Your task to perform on an android device: Open internet settings Image 0: 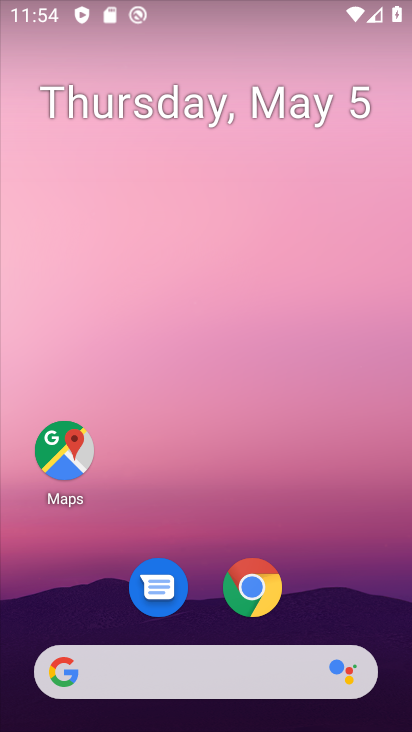
Step 0: drag from (316, 276) to (316, 233)
Your task to perform on an android device: Open internet settings Image 1: 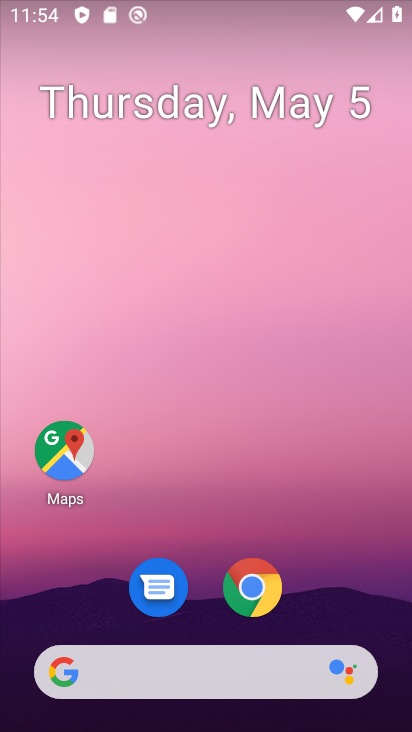
Step 1: drag from (390, 657) to (333, 178)
Your task to perform on an android device: Open internet settings Image 2: 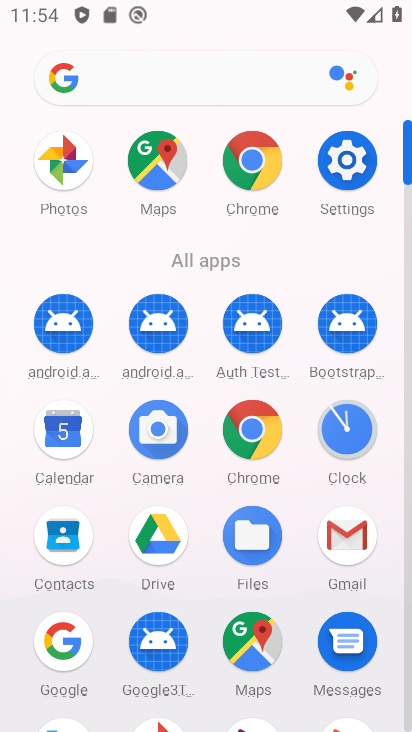
Step 2: click (347, 159)
Your task to perform on an android device: Open internet settings Image 3: 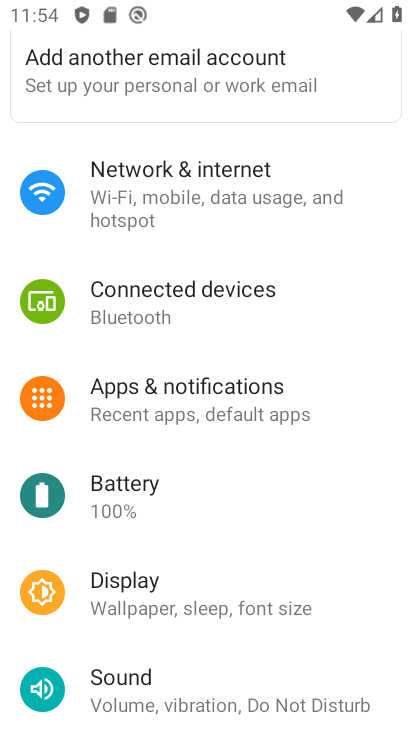
Step 3: click (144, 182)
Your task to perform on an android device: Open internet settings Image 4: 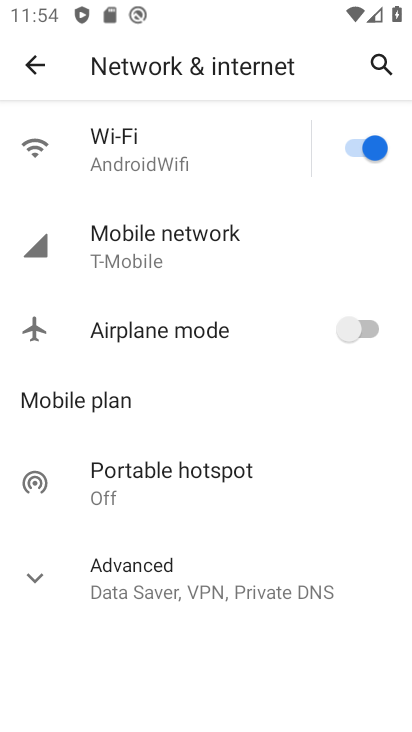
Step 4: task complete